Your task to perform on an android device: toggle location history Image 0: 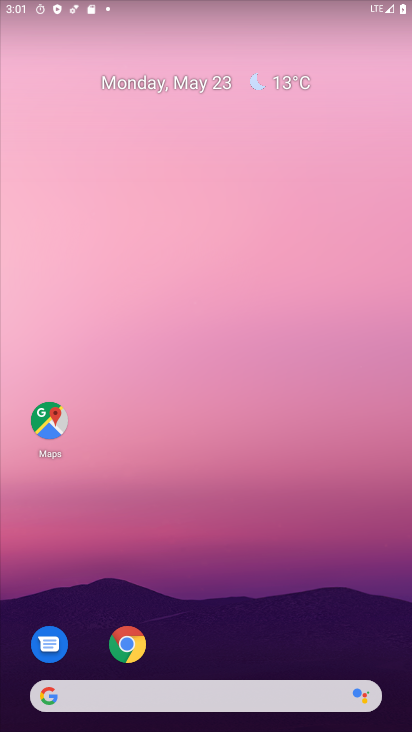
Step 0: drag from (206, 665) to (149, 94)
Your task to perform on an android device: toggle location history Image 1: 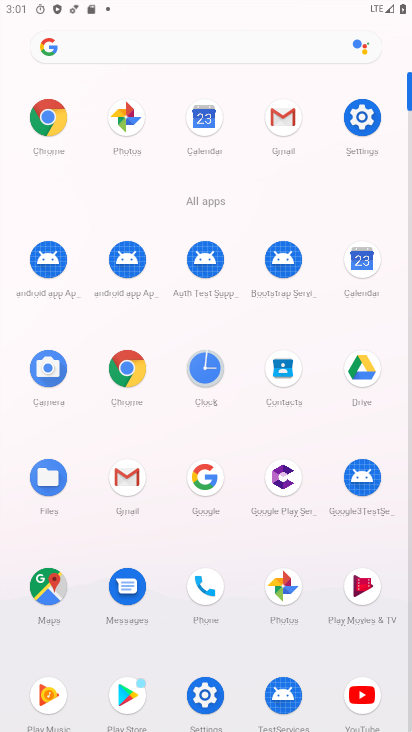
Step 1: click (366, 121)
Your task to perform on an android device: toggle location history Image 2: 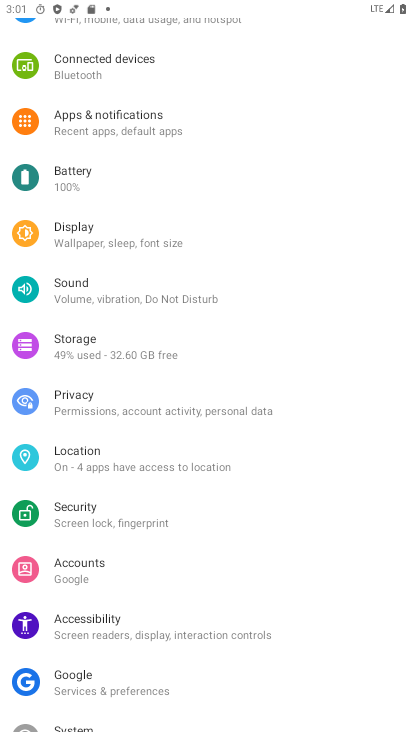
Step 2: click (79, 469)
Your task to perform on an android device: toggle location history Image 3: 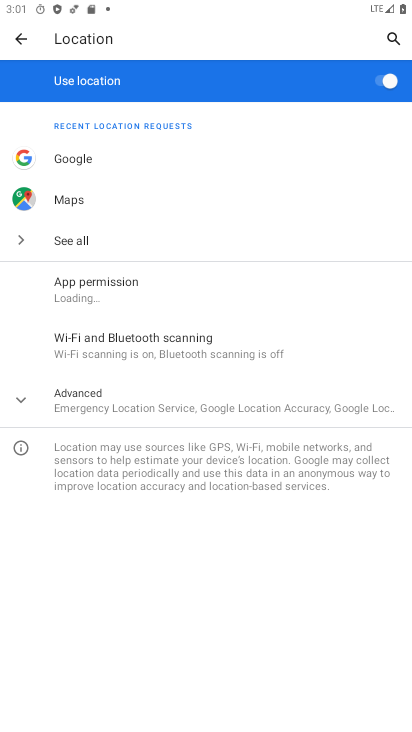
Step 3: click (126, 409)
Your task to perform on an android device: toggle location history Image 4: 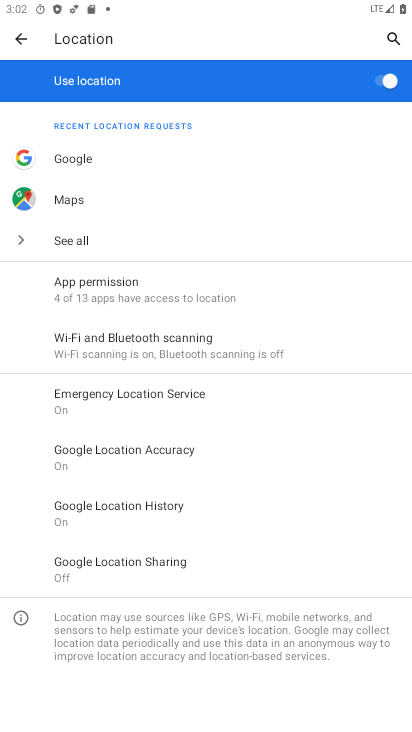
Step 4: click (144, 522)
Your task to perform on an android device: toggle location history Image 5: 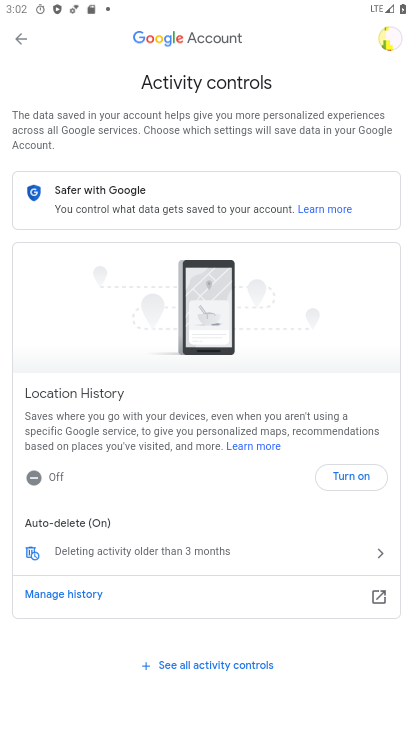
Step 5: click (353, 479)
Your task to perform on an android device: toggle location history Image 6: 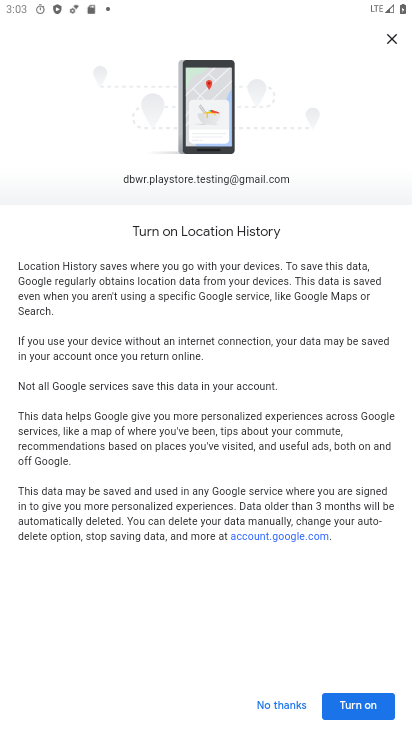
Step 6: click (371, 707)
Your task to perform on an android device: toggle location history Image 7: 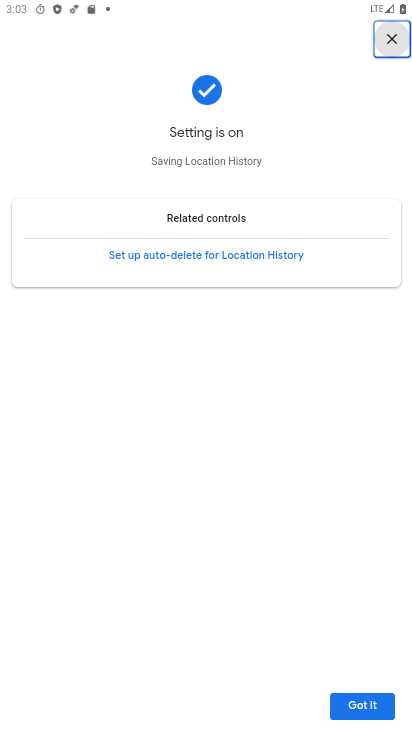
Step 7: click (369, 710)
Your task to perform on an android device: toggle location history Image 8: 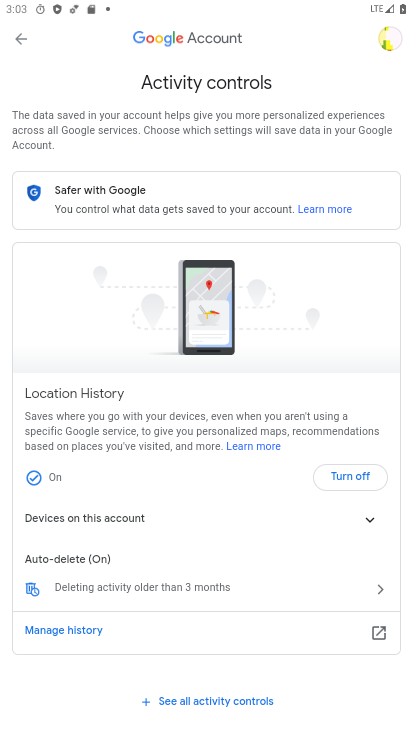
Step 8: task complete